Your task to perform on an android device: toggle show notifications on the lock screen Image 0: 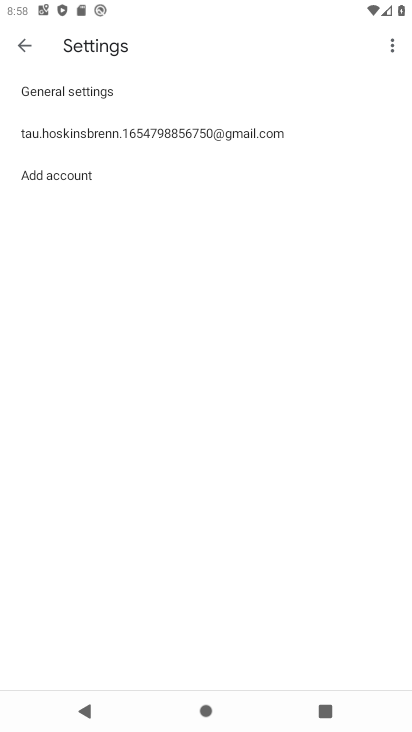
Step 0: press home button
Your task to perform on an android device: toggle show notifications on the lock screen Image 1: 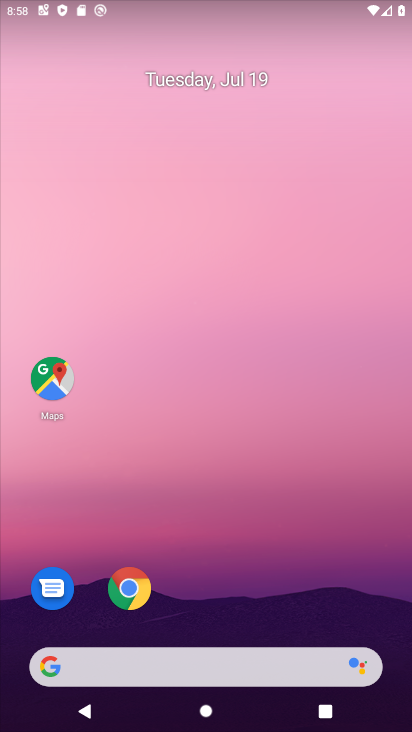
Step 1: drag from (254, 552) to (158, 87)
Your task to perform on an android device: toggle show notifications on the lock screen Image 2: 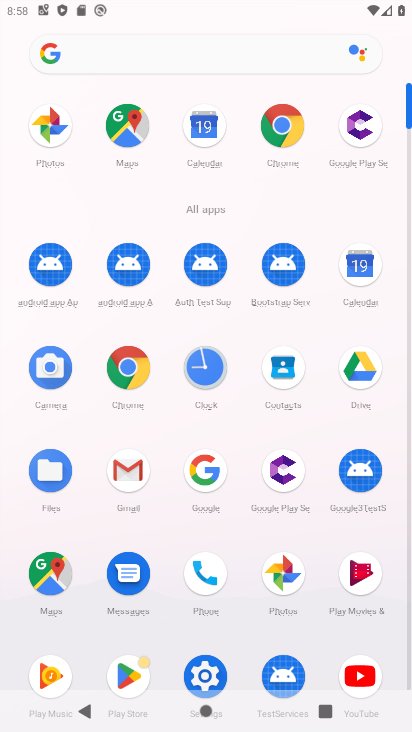
Step 2: click (204, 671)
Your task to perform on an android device: toggle show notifications on the lock screen Image 3: 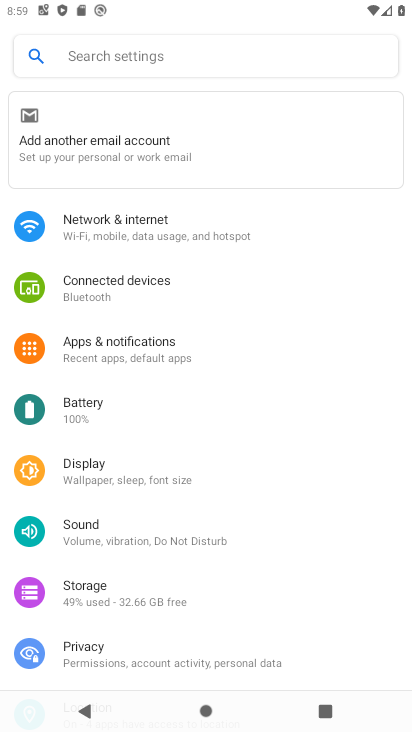
Step 3: click (117, 344)
Your task to perform on an android device: toggle show notifications on the lock screen Image 4: 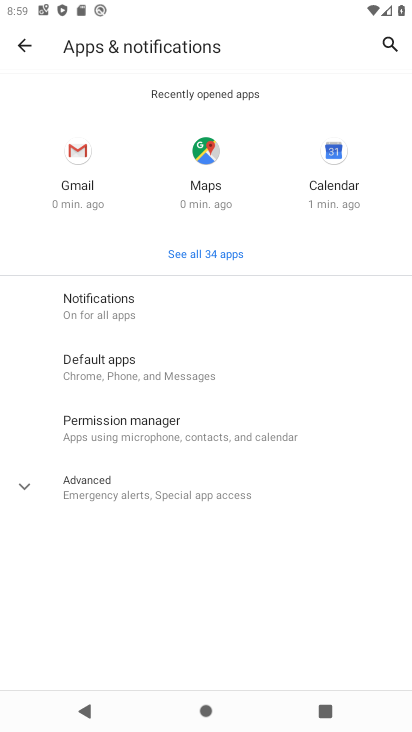
Step 4: click (72, 297)
Your task to perform on an android device: toggle show notifications on the lock screen Image 5: 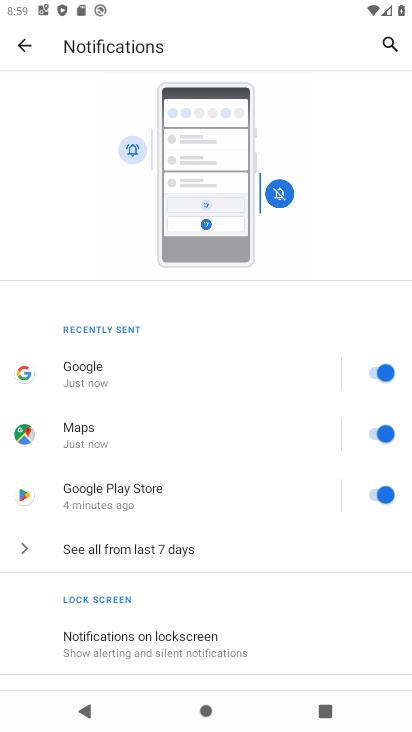
Step 5: click (163, 635)
Your task to perform on an android device: toggle show notifications on the lock screen Image 6: 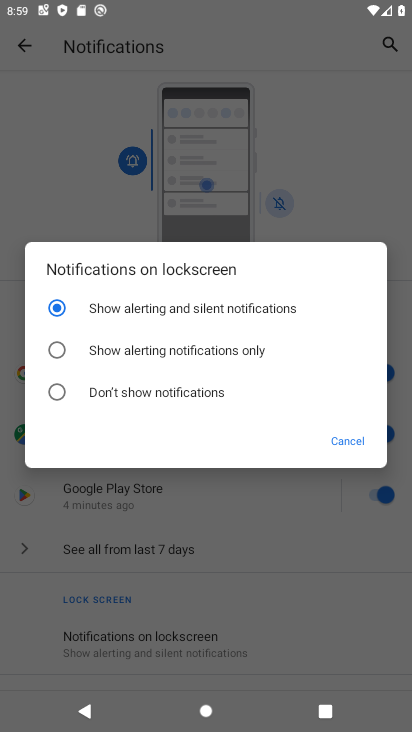
Step 6: click (54, 385)
Your task to perform on an android device: toggle show notifications on the lock screen Image 7: 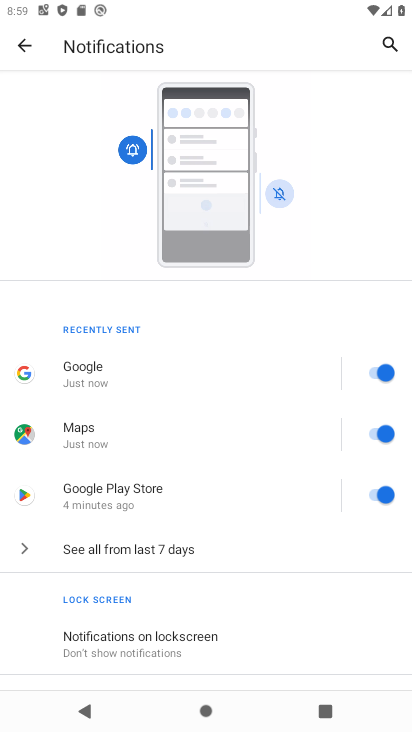
Step 7: task complete